Your task to perform on an android device: Clear the cart on target.com. Add "usb-a to usb-b" to the cart on target.com Image 0: 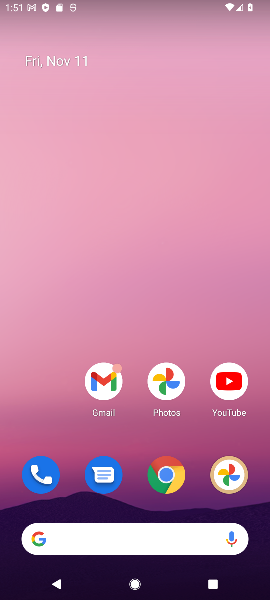
Step 0: drag from (78, 424) to (90, 54)
Your task to perform on an android device: Clear the cart on target.com. Add "usb-a to usb-b" to the cart on target.com Image 1: 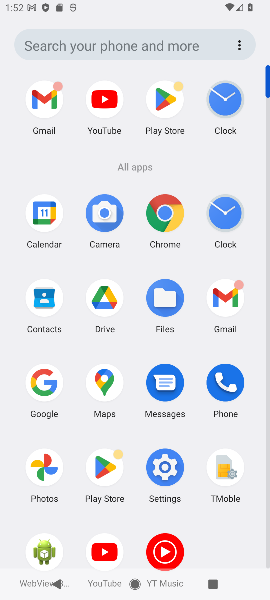
Step 1: click (167, 211)
Your task to perform on an android device: Clear the cart on target.com. Add "usb-a to usb-b" to the cart on target.com Image 2: 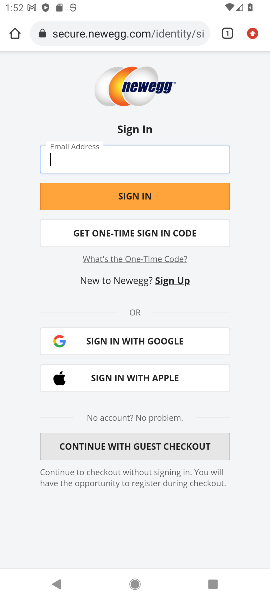
Step 2: click (128, 33)
Your task to perform on an android device: Clear the cart on target.com. Add "usb-a to usb-b" to the cart on target.com Image 3: 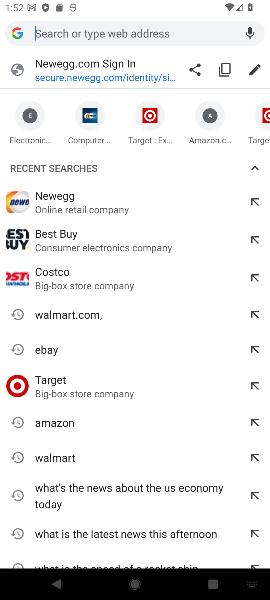
Step 3: type "target.com"
Your task to perform on an android device: Clear the cart on target.com. Add "usb-a to usb-b" to the cart on target.com Image 4: 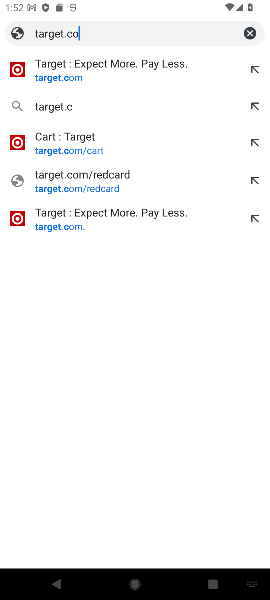
Step 4: press enter
Your task to perform on an android device: Clear the cart on target.com. Add "usb-a to usb-b" to the cart on target.com Image 5: 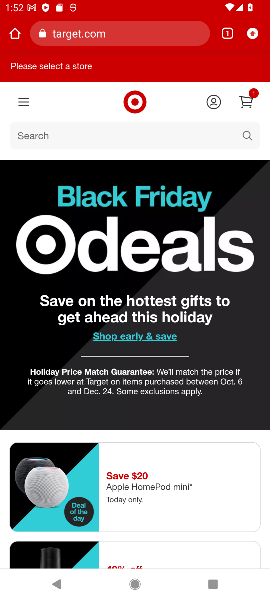
Step 5: click (247, 98)
Your task to perform on an android device: Clear the cart on target.com. Add "usb-a to usb-b" to the cart on target.com Image 6: 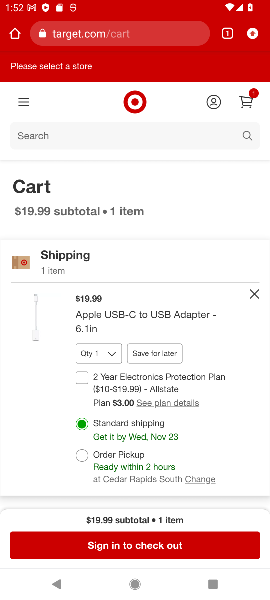
Step 6: drag from (209, 420) to (222, 349)
Your task to perform on an android device: Clear the cart on target.com. Add "usb-a to usb-b" to the cart on target.com Image 7: 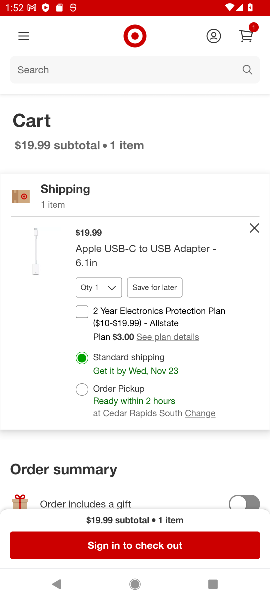
Step 7: click (254, 219)
Your task to perform on an android device: Clear the cart on target.com. Add "usb-a to usb-b" to the cart on target.com Image 8: 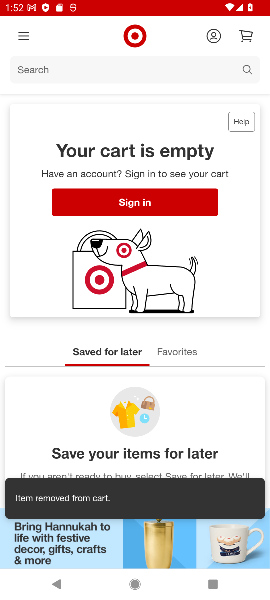
Step 8: click (76, 68)
Your task to perform on an android device: Clear the cart on target.com. Add "usb-a to usb-b" to the cart on target.com Image 9: 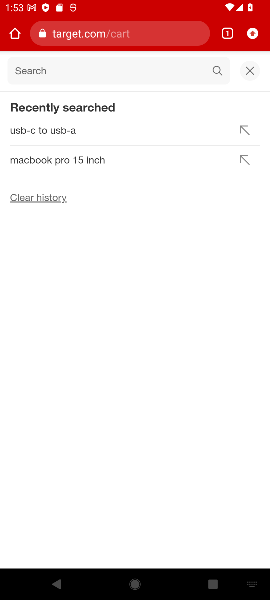
Step 9: type "usb-a to usb-b"
Your task to perform on an android device: Clear the cart on target.com. Add "usb-a to usb-b" to the cart on target.com Image 10: 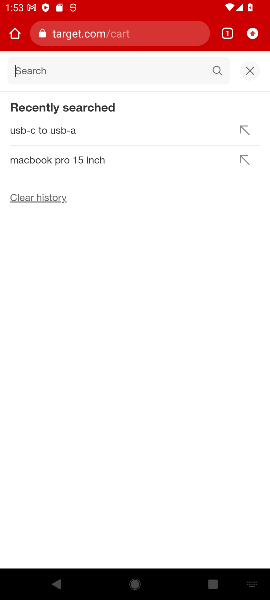
Step 10: press enter
Your task to perform on an android device: Clear the cart on target.com. Add "usb-a to usb-b" to the cart on target.com Image 11: 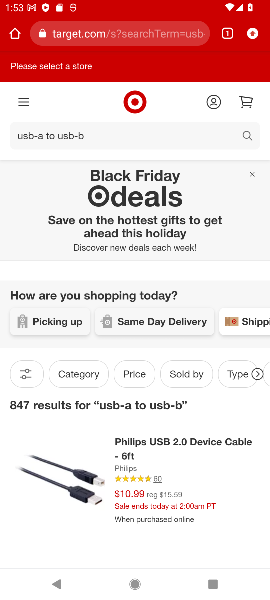
Step 11: drag from (86, 487) to (80, 308)
Your task to perform on an android device: Clear the cart on target.com. Add "usb-a to usb-b" to the cart on target.com Image 12: 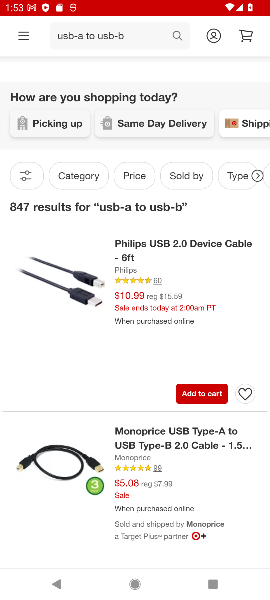
Step 12: click (212, 394)
Your task to perform on an android device: Clear the cart on target.com. Add "usb-a to usb-b" to the cart on target.com Image 13: 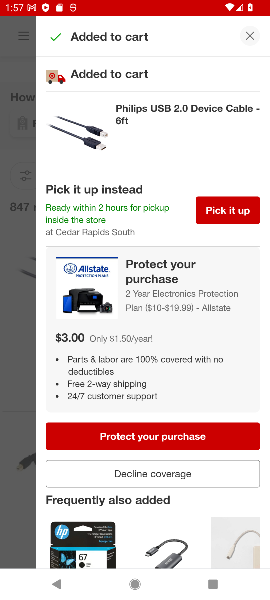
Step 13: task complete